Your task to perform on an android device: What's the weather going to be tomorrow? Image 0: 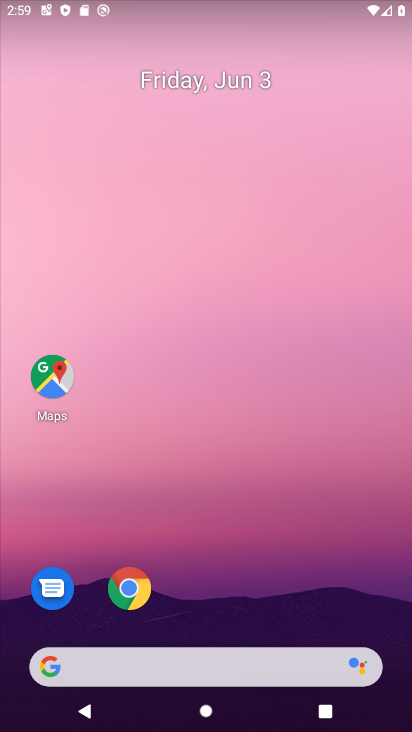
Step 0: click (135, 670)
Your task to perform on an android device: What's the weather going to be tomorrow? Image 1: 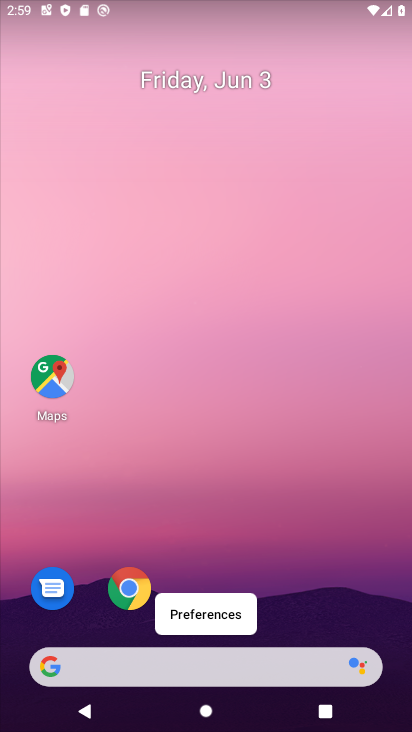
Step 1: click (104, 657)
Your task to perform on an android device: What's the weather going to be tomorrow? Image 2: 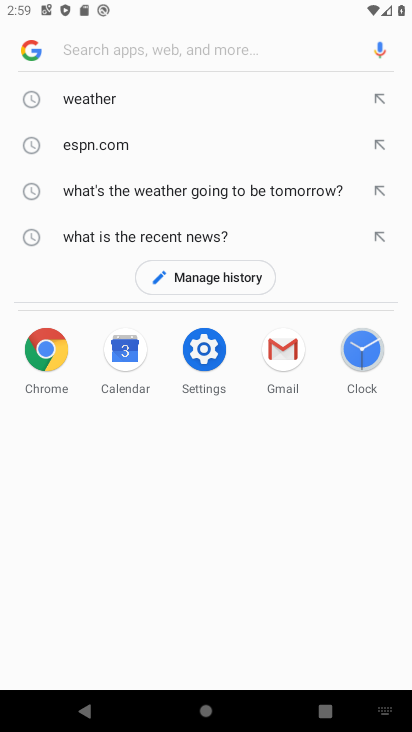
Step 2: click (86, 96)
Your task to perform on an android device: What's the weather going to be tomorrow? Image 3: 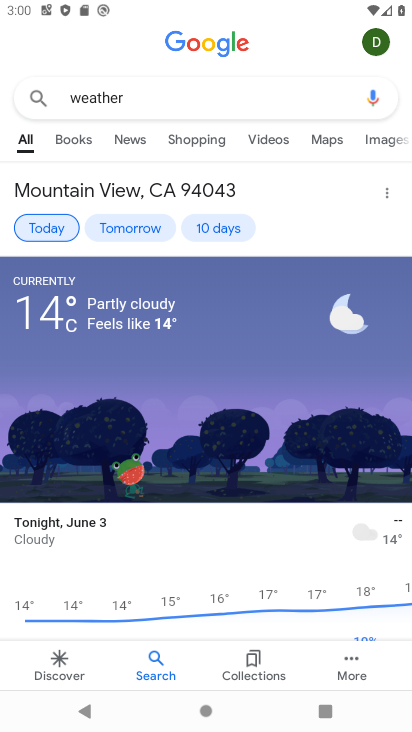
Step 3: task complete